Your task to perform on an android device: turn on the 24-hour format for clock Image 0: 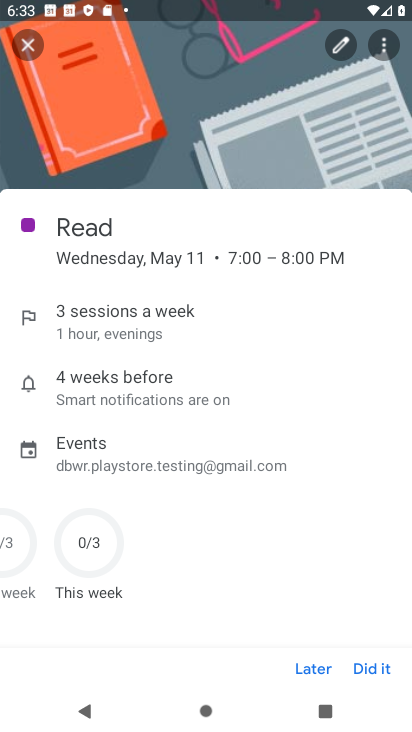
Step 0: press home button
Your task to perform on an android device: turn on the 24-hour format for clock Image 1: 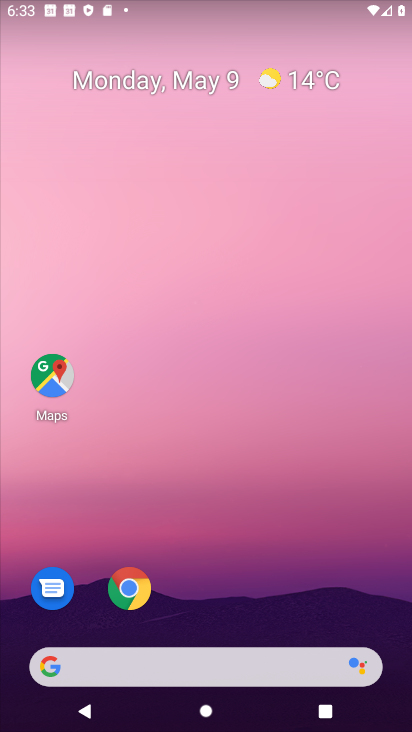
Step 1: drag from (330, 615) to (302, 26)
Your task to perform on an android device: turn on the 24-hour format for clock Image 2: 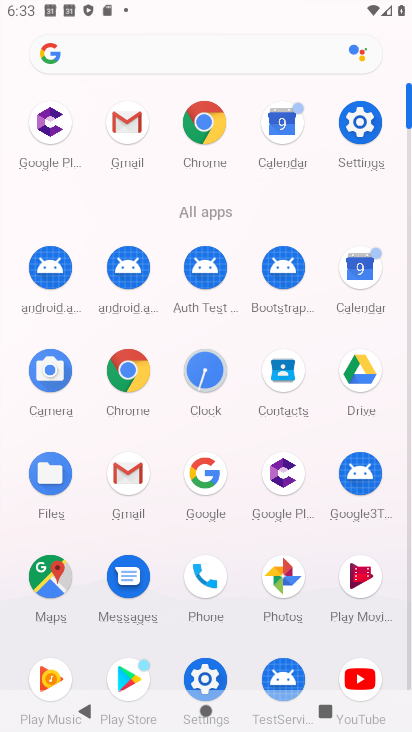
Step 2: click (200, 361)
Your task to perform on an android device: turn on the 24-hour format for clock Image 3: 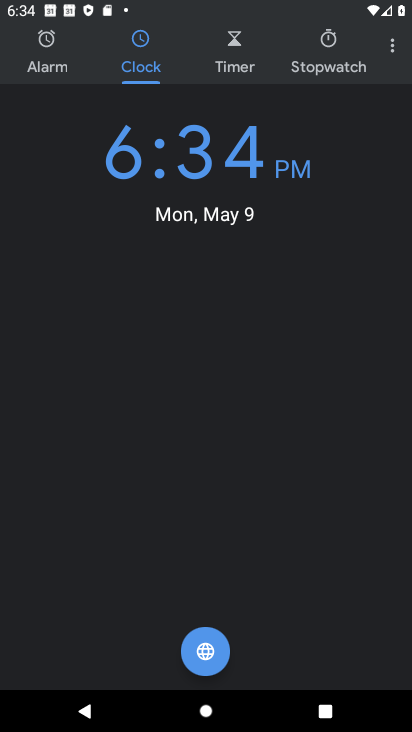
Step 3: click (390, 44)
Your task to perform on an android device: turn on the 24-hour format for clock Image 4: 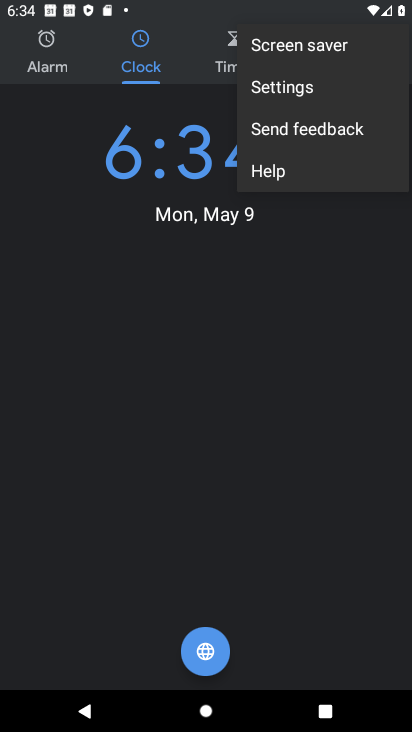
Step 4: click (320, 100)
Your task to perform on an android device: turn on the 24-hour format for clock Image 5: 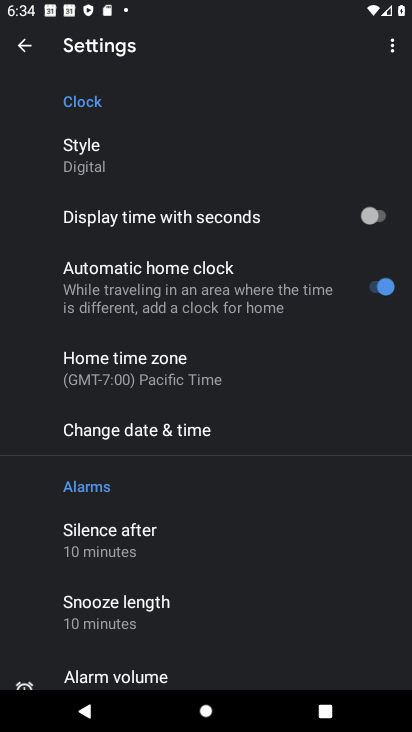
Step 5: click (189, 433)
Your task to perform on an android device: turn on the 24-hour format for clock Image 6: 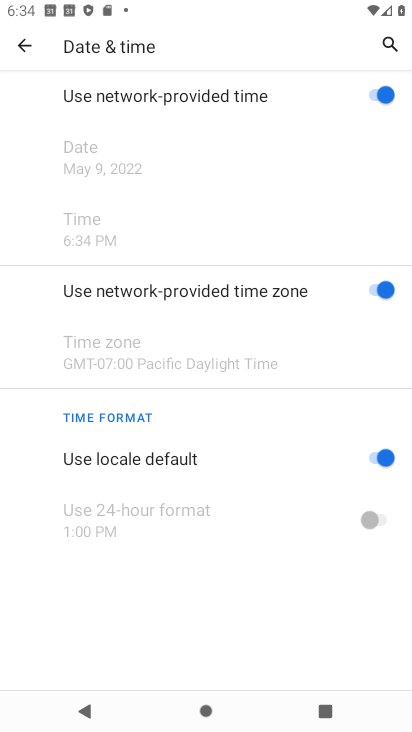
Step 6: task complete